Your task to perform on an android device: check data usage Image 0: 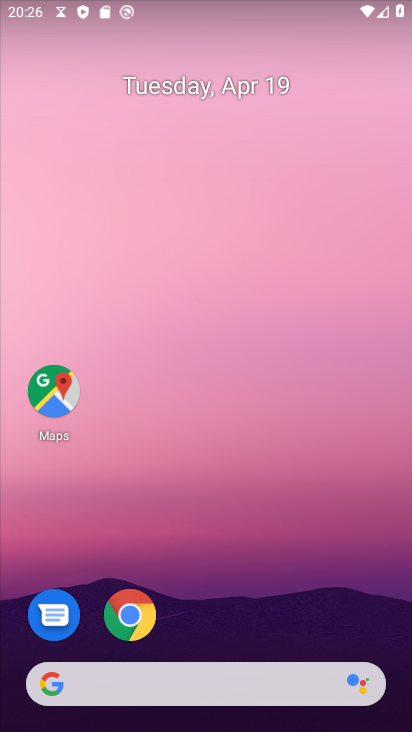
Step 0: drag from (300, 537) to (274, 2)
Your task to perform on an android device: check data usage Image 1: 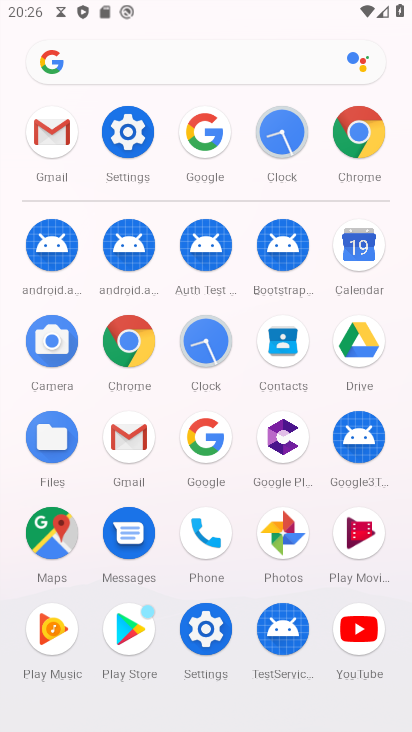
Step 1: drag from (14, 483) to (12, 291)
Your task to perform on an android device: check data usage Image 2: 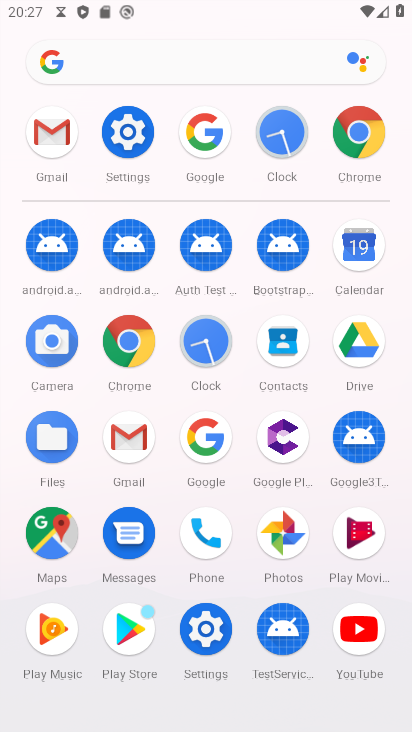
Step 2: click (206, 624)
Your task to perform on an android device: check data usage Image 3: 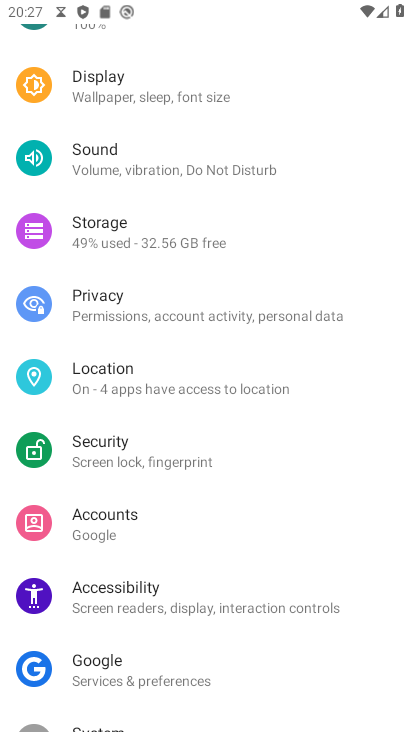
Step 3: drag from (224, 133) to (192, 501)
Your task to perform on an android device: check data usage Image 4: 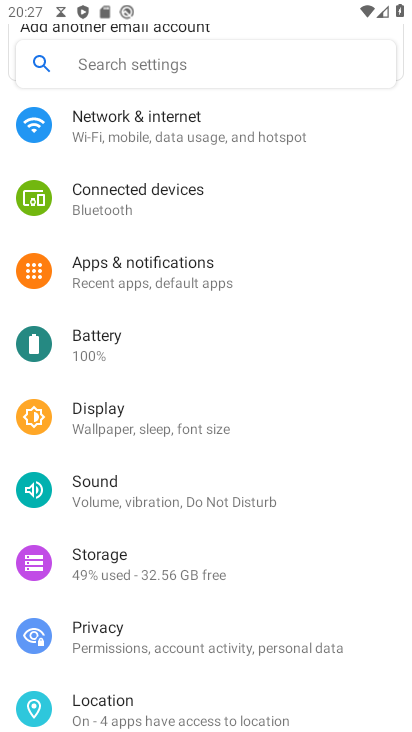
Step 4: drag from (170, 129) to (133, 385)
Your task to perform on an android device: check data usage Image 5: 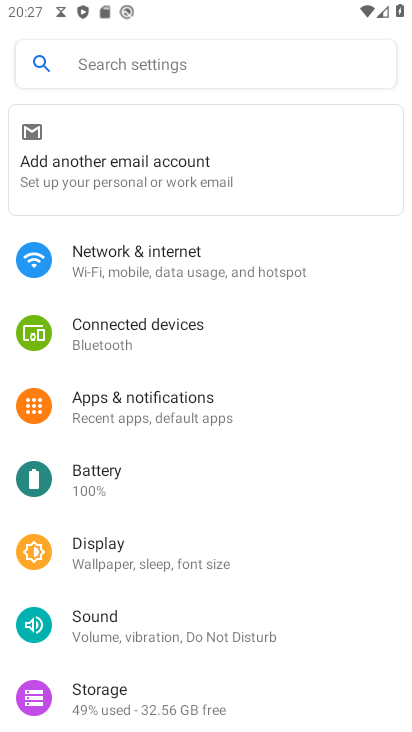
Step 5: click (132, 250)
Your task to perform on an android device: check data usage Image 6: 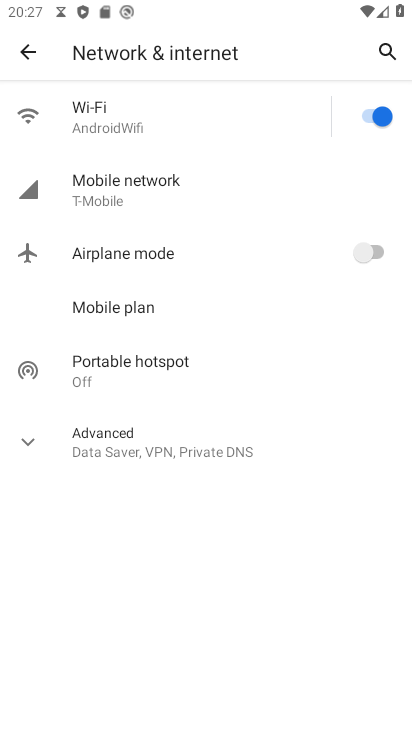
Step 6: click (132, 196)
Your task to perform on an android device: check data usage Image 7: 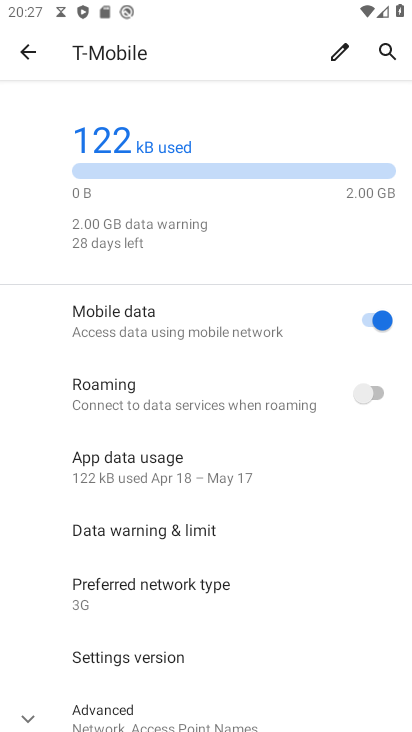
Step 7: task complete